Your task to perform on an android device: toggle pop-ups in chrome Image 0: 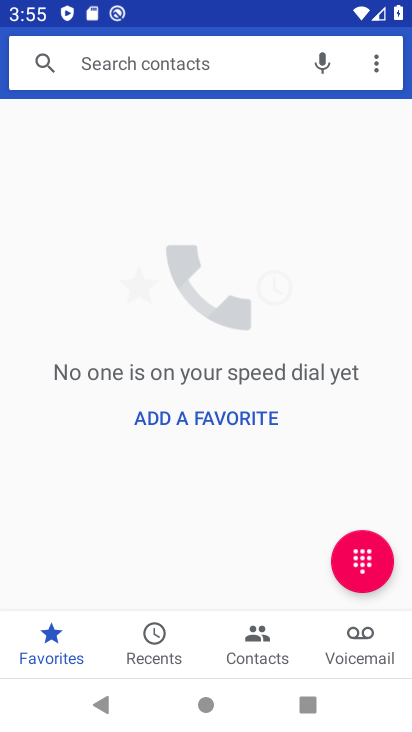
Step 0: press back button
Your task to perform on an android device: toggle pop-ups in chrome Image 1: 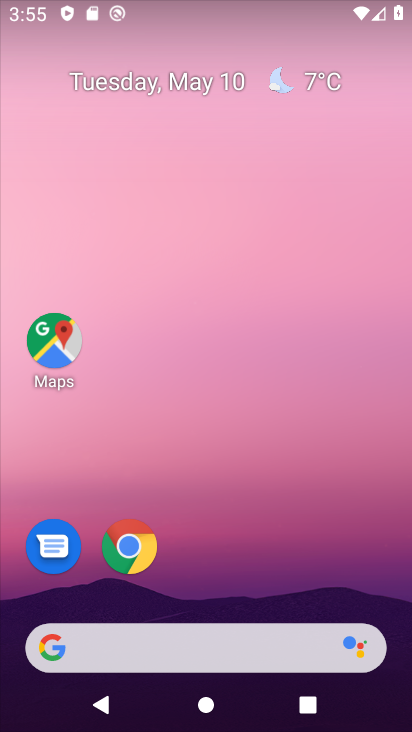
Step 1: drag from (347, 591) to (116, 17)
Your task to perform on an android device: toggle pop-ups in chrome Image 2: 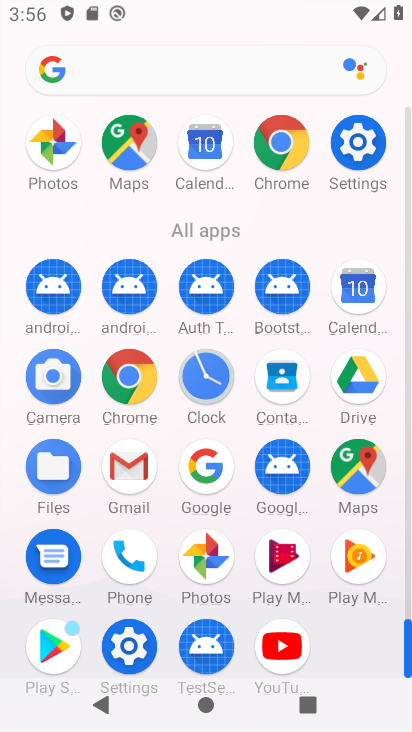
Step 2: click (280, 148)
Your task to perform on an android device: toggle pop-ups in chrome Image 3: 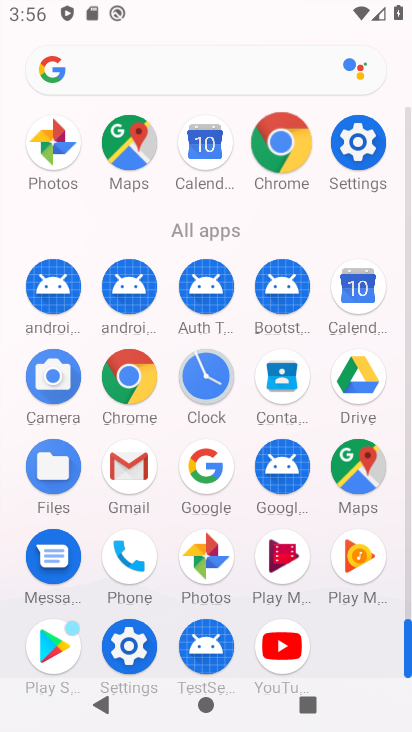
Step 3: click (280, 148)
Your task to perform on an android device: toggle pop-ups in chrome Image 4: 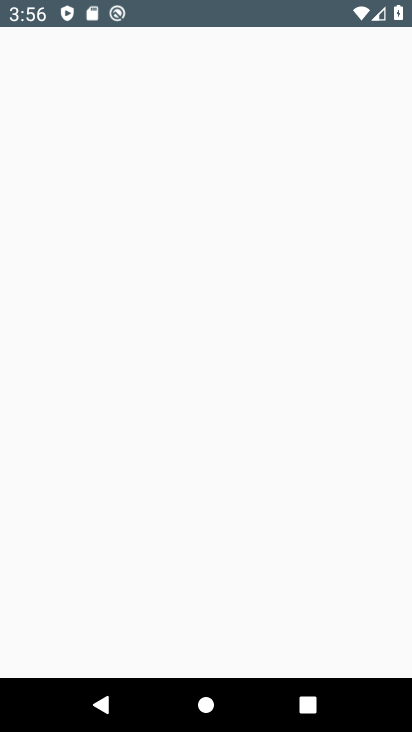
Step 4: click (280, 148)
Your task to perform on an android device: toggle pop-ups in chrome Image 5: 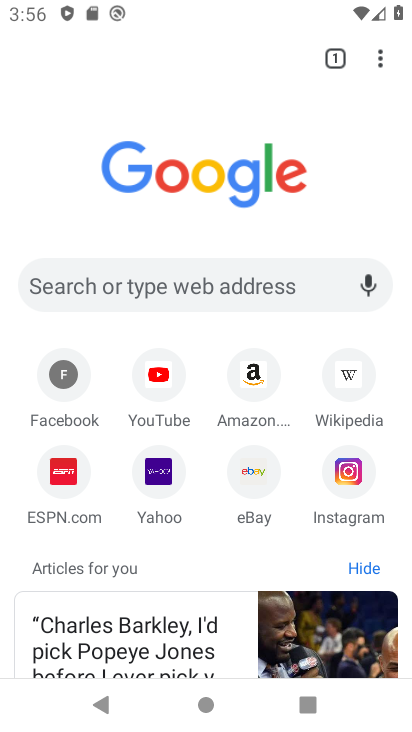
Step 5: drag from (383, 58) to (189, 507)
Your task to perform on an android device: toggle pop-ups in chrome Image 6: 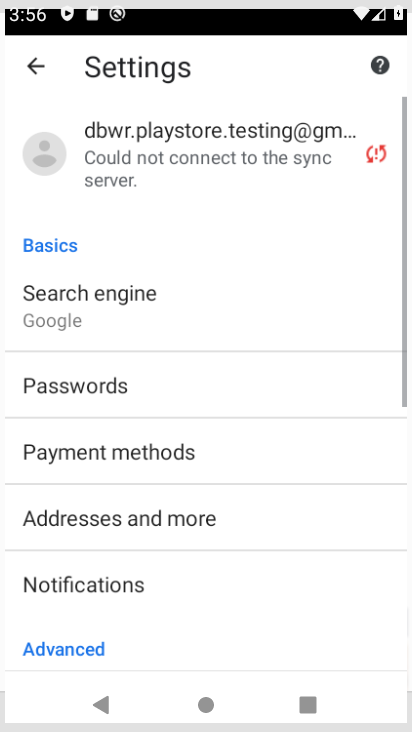
Step 6: click (191, 504)
Your task to perform on an android device: toggle pop-ups in chrome Image 7: 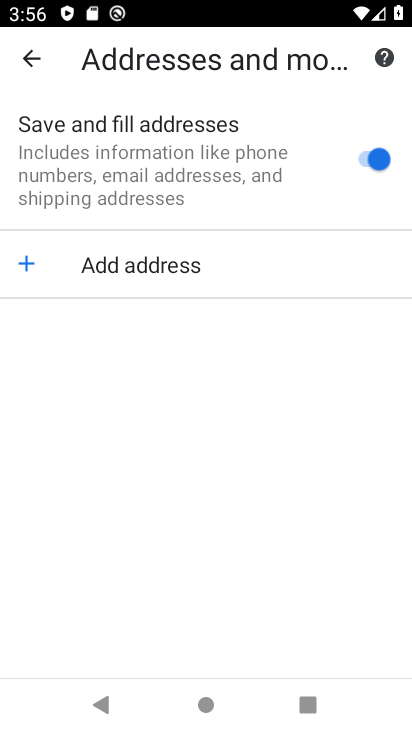
Step 7: click (33, 53)
Your task to perform on an android device: toggle pop-ups in chrome Image 8: 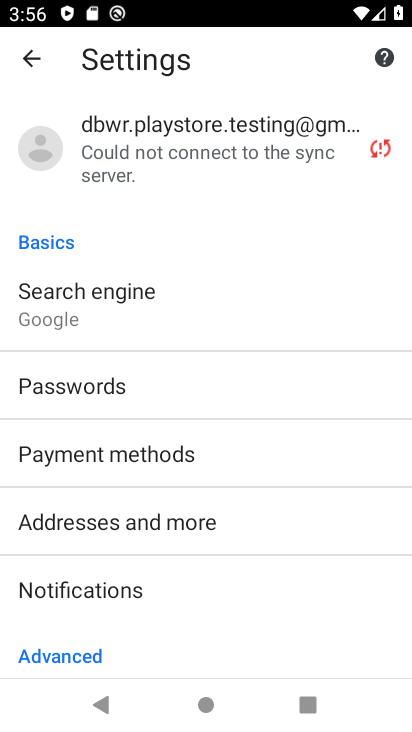
Step 8: drag from (176, 597) to (135, 115)
Your task to perform on an android device: toggle pop-ups in chrome Image 9: 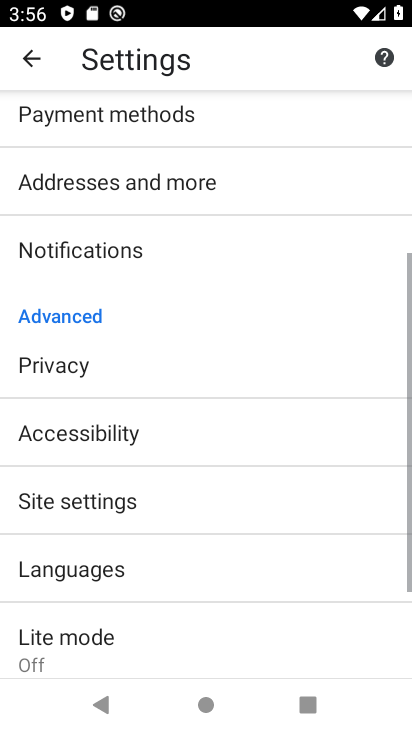
Step 9: drag from (247, 520) to (109, 101)
Your task to perform on an android device: toggle pop-ups in chrome Image 10: 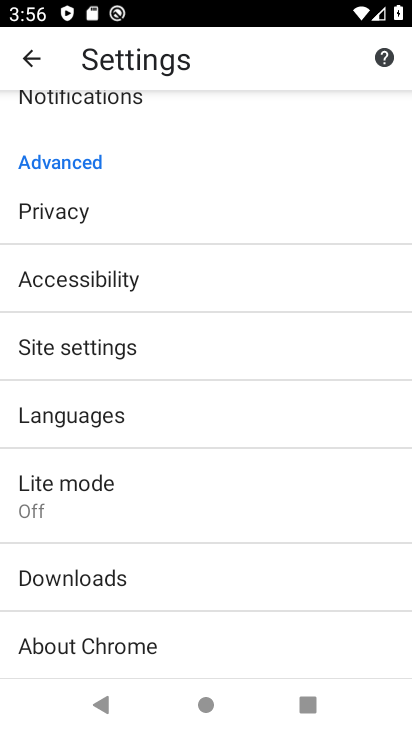
Step 10: click (54, 347)
Your task to perform on an android device: toggle pop-ups in chrome Image 11: 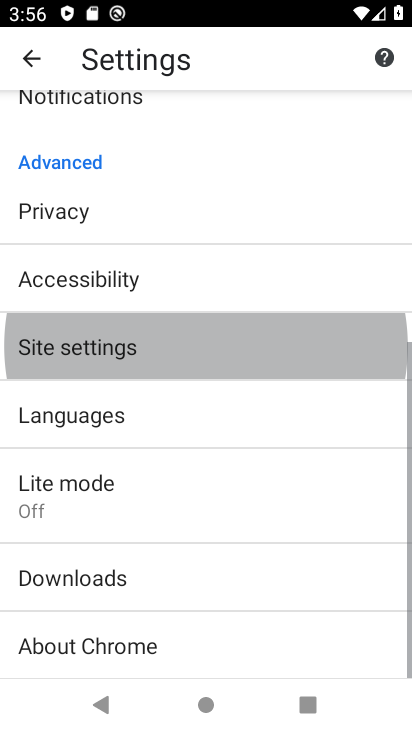
Step 11: click (55, 347)
Your task to perform on an android device: toggle pop-ups in chrome Image 12: 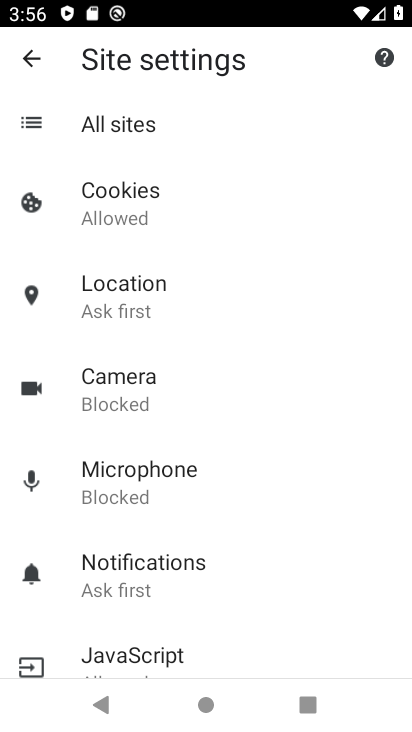
Step 12: drag from (287, 600) to (214, 239)
Your task to perform on an android device: toggle pop-ups in chrome Image 13: 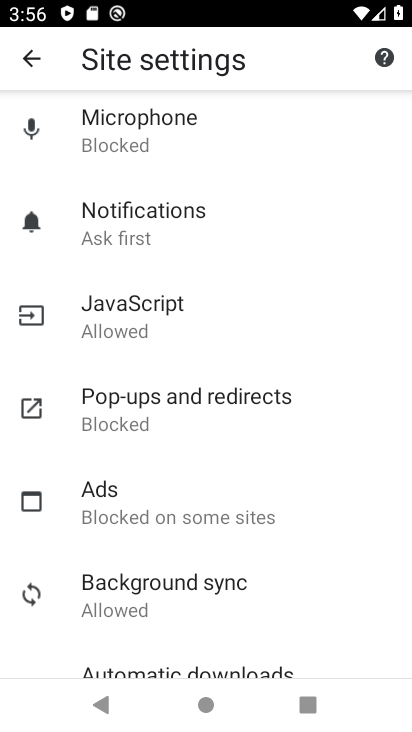
Step 13: click (142, 415)
Your task to perform on an android device: toggle pop-ups in chrome Image 14: 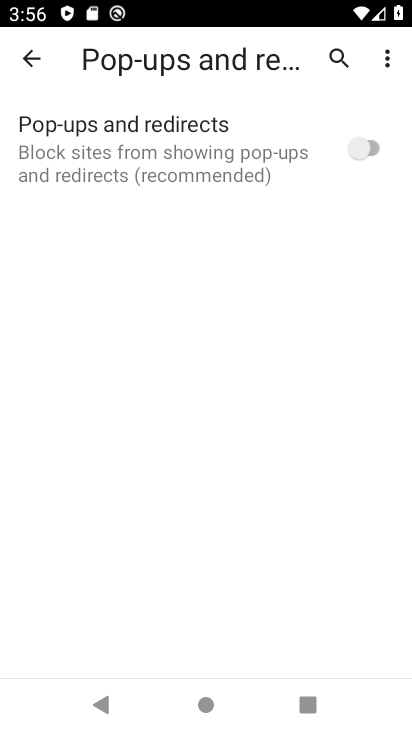
Step 14: click (361, 149)
Your task to perform on an android device: toggle pop-ups in chrome Image 15: 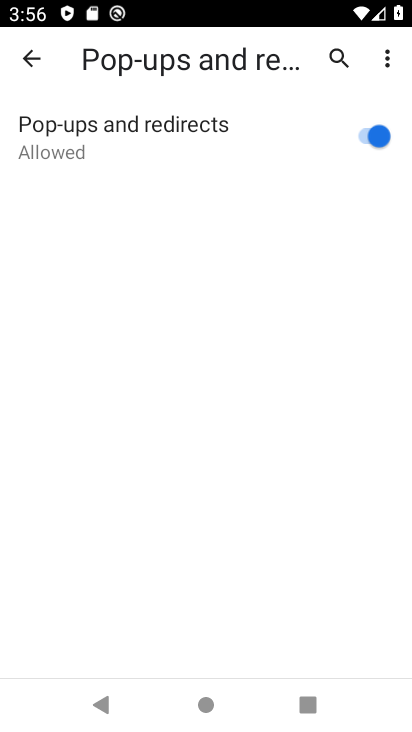
Step 15: task complete